Your task to perform on an android device: Search for vegetarian restaurants on Maps Image 0: 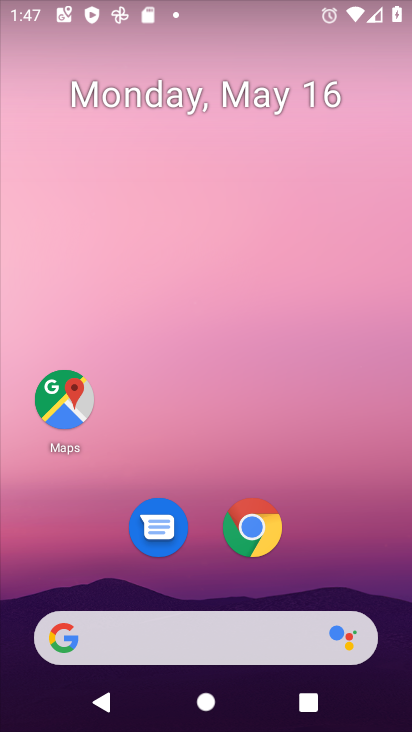
Step 0: drag from (377, 571) to (285, 108)
Your task to perform on an android device: Search for vegetarian restaurants on Maps Image 1: 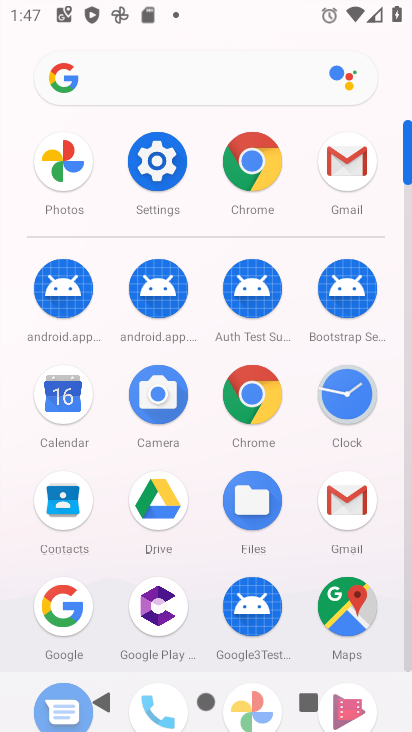
Step 1: click (333, 597)
Your task to perform on an android device: Search for vegetarian restaurants on Maps Image 2: 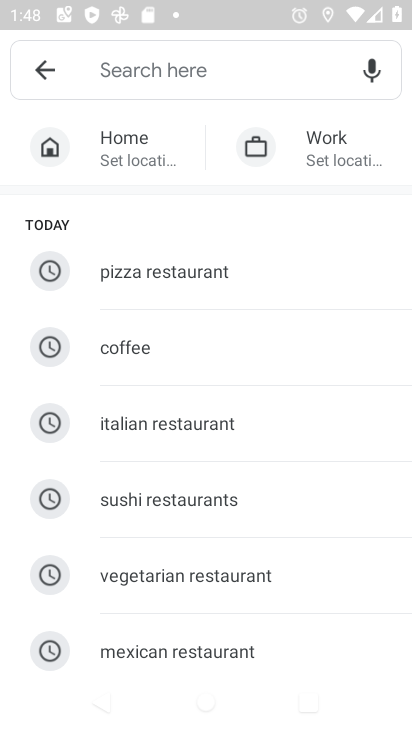
Step 2: click (215, 570)
Your task to perform on an android device: Search for vegetarian restaurants on Maps Image 3: 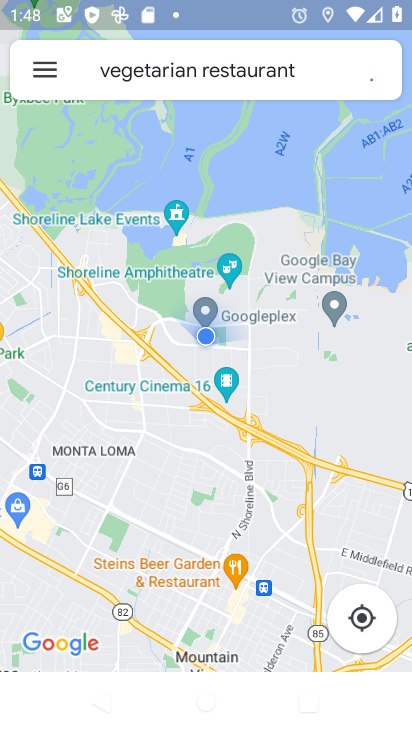
Step 3: task complete